Your task to perform on an android device: delete the emails in spam in the gmail app Image 0: 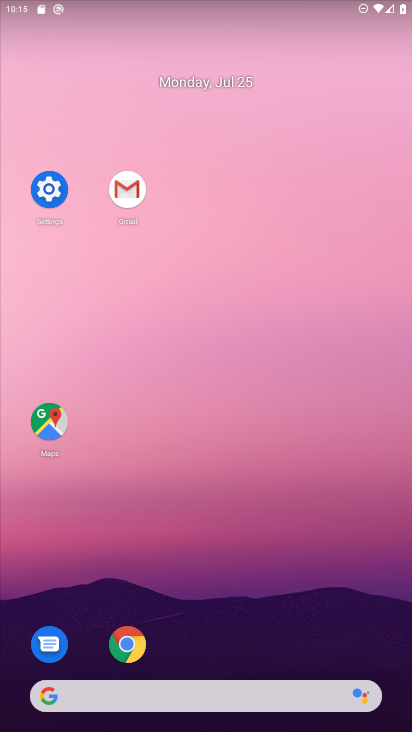
Step 0: click (125, 199)
Your task to perform on an android device: delete the emails in spam in the gmail app Image 1: 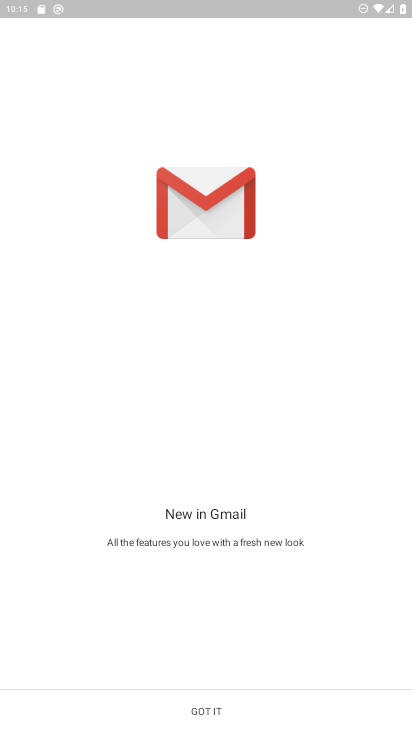
Step 1: click (139, 716)
Your task to perform on an android device: delete the emails in spam in the gmail app Image 2: 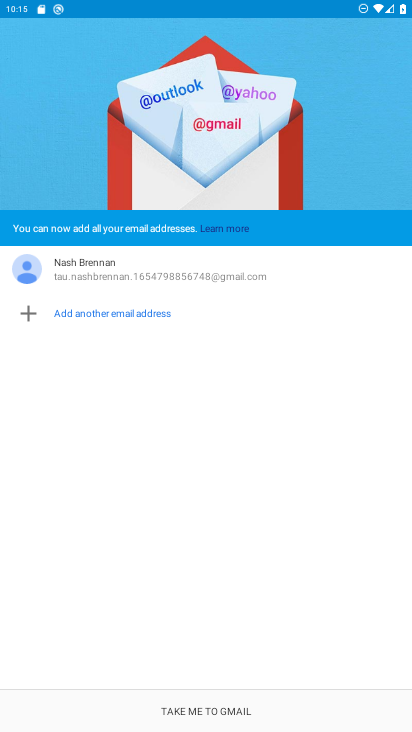
Step 2: click (222, 719)
Your task to perform on an android device: delete the emails in spam in the gmail app Image 3: 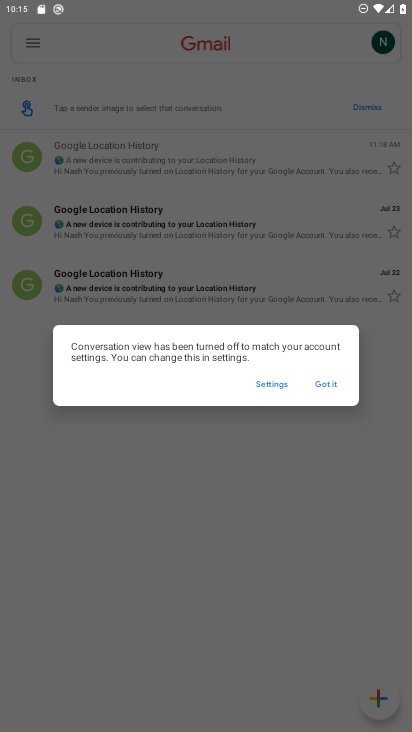
Step 3: click (342, 379)
Your task to perform on an android device: delete the emails in spam in the gmail app Image 4: 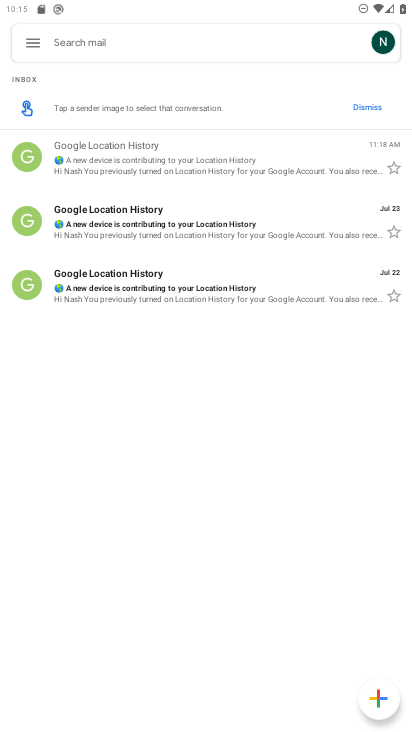
Step 4: click (245, 159)
Your task to perform on an android device: delete the emails in spam in the gmail app Image 5: 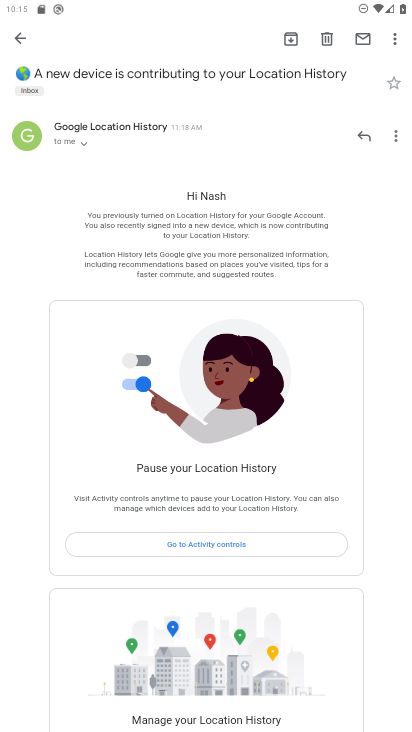
Step 5: click (328, 39)
Your task to perform on an android device: delete the emails in spam in the gmail app Image 6: 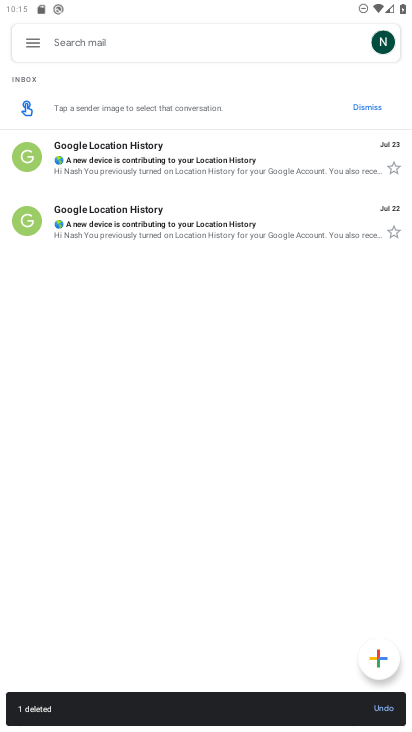
Step 6: task complete